Your task to perform on an android device: find snoozed emails in the gmail app Image 0: 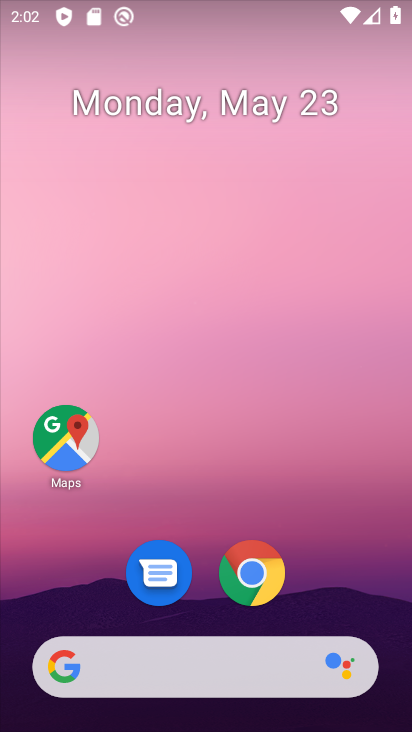
Step 0: drag from (343, 570) to (284, 92)
Your task to perform on an android device: find snoozed emails in the gmail app Image 1: 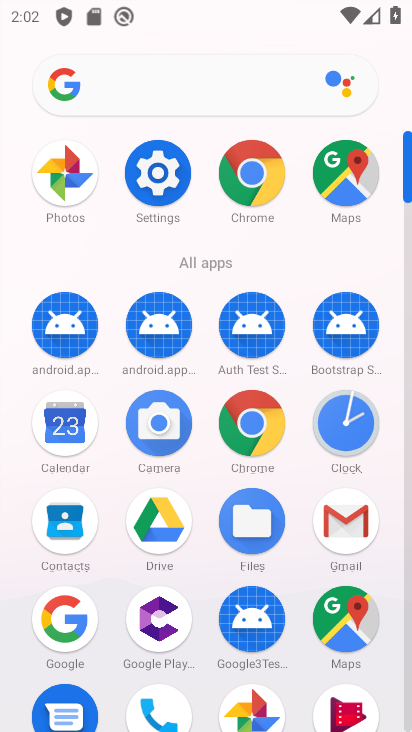
Step 1: click (347, 530)
Your task to perform on an android device: find snoozed emails in the gmail app Image 2: 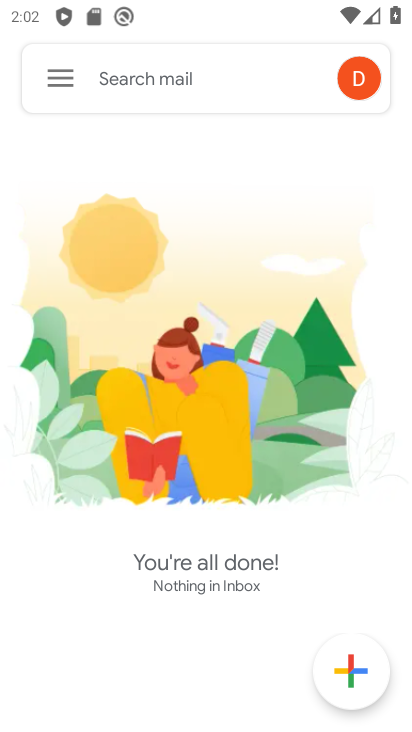
Step 2: click (48, 74)
Your task to perform on an android device: find snoozed emails in the gmail app Image 3: 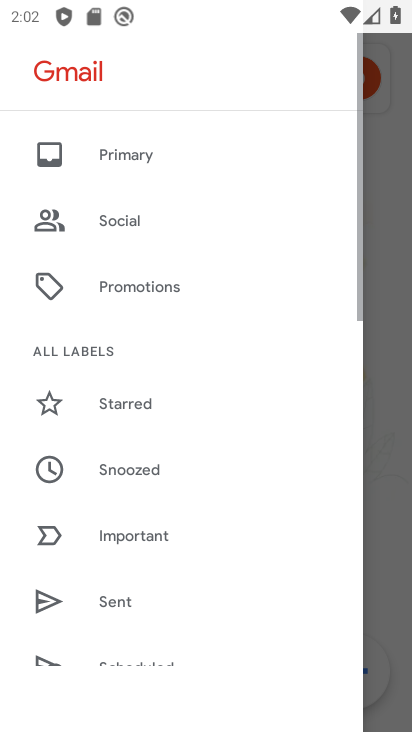
Step 3: drag from (206, 628) to (185, 131)
Your task to perform on an android device: find snoozed emails in the gmail app Image 4: 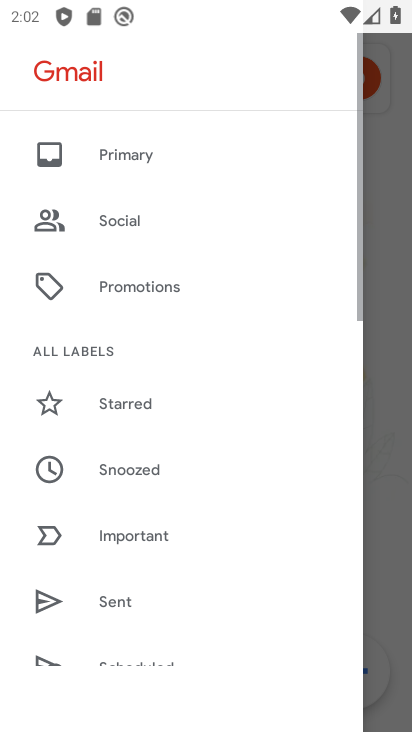
Step 4: drag from (133, 553) to (184, 118)
Your task to perform on an android device: find snoozed emails in the gmail app Image 5: 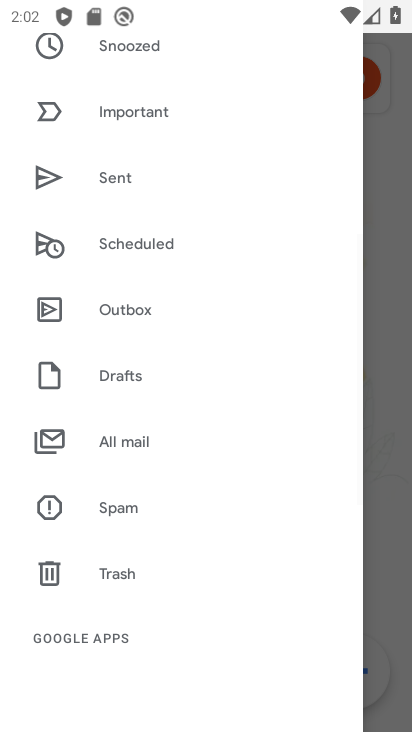
Step 5: drag from (190, 632) to (166, 207)
Your task to perform on an android device: find snoozed emails in the gmail app Image 6: 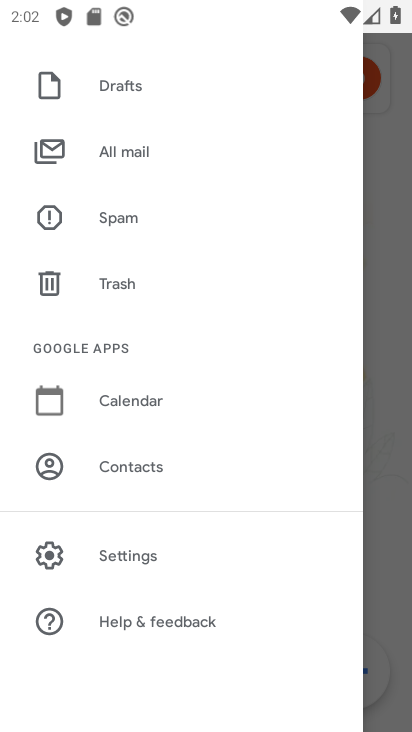
Step 6: drag from (124, 319) to (111, 657)
Your task to perform on an android device: find snoozed emails in the gmail app Image 7: 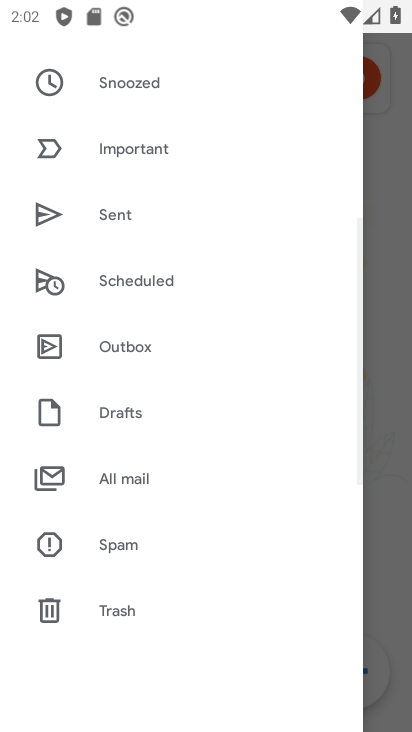
Step 7: drag from (150, 194) to (142, 607)
Your task to perform on an android device: find snoozed emails in the gmail app Image 8: 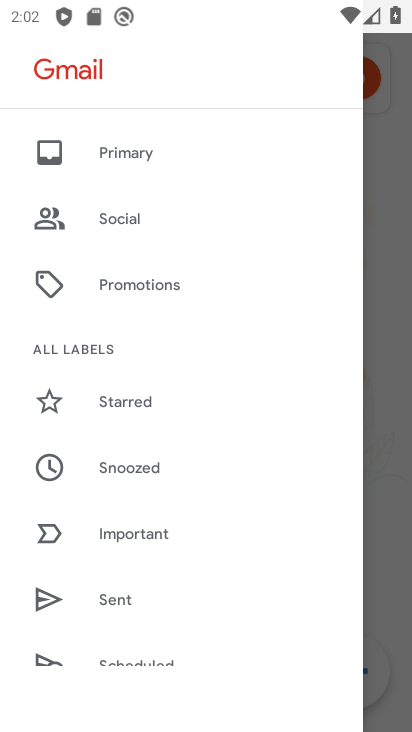
Step 8: click (130, 468)
Your task to perform on an android device: find snoozed emails in the gmail app Image 9: 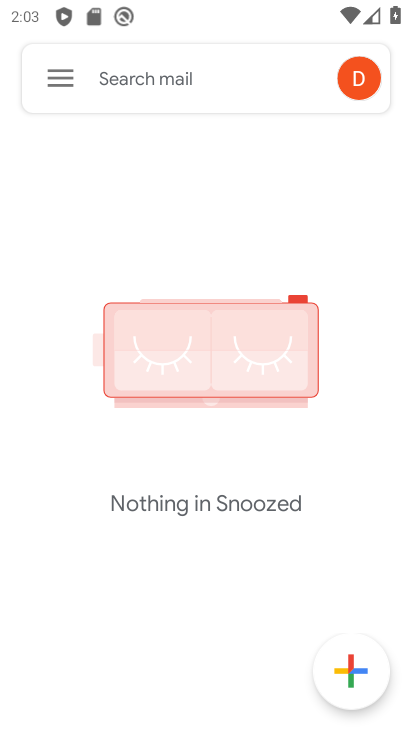
Step 9: task complete